Your task to perform on an android device: What's on my calendar today? Image 0: 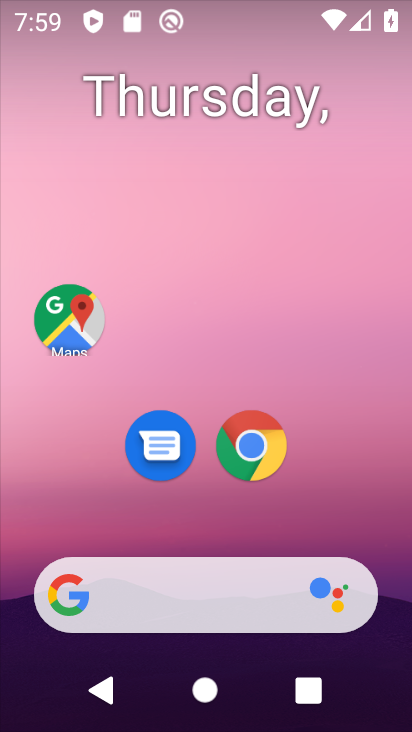
Step 0: drag from (362, 555) to (352, 0)
Your task to perform on an android device: What's on my calendar today? Image 1: 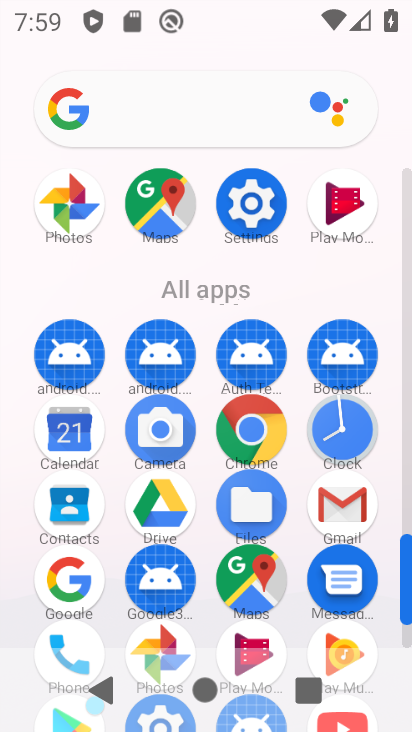
Step 1: click (58, 433)
Your task to perform on an android device: What's on my calendar today? Image 2: 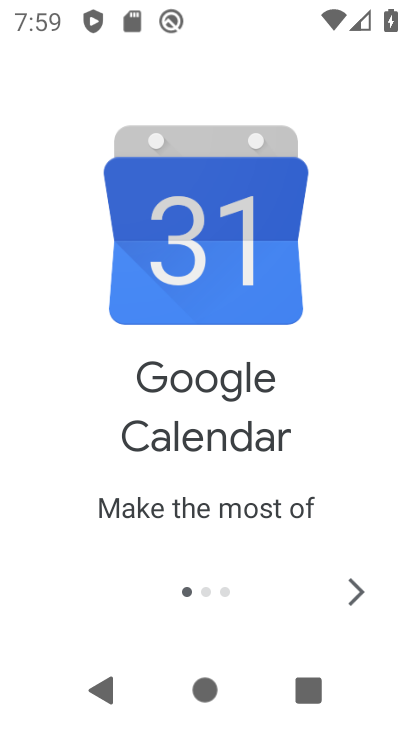
Step 2: click (352, 580)
Your task to perform on an android device: What's on my calendar today? Image 3: 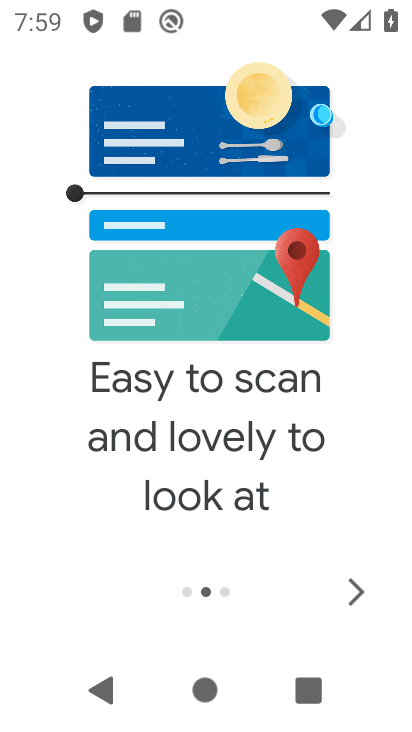
Step 3: click (348, 590)
Your task to perform on an android device: What's on my calendar today? Image 4: 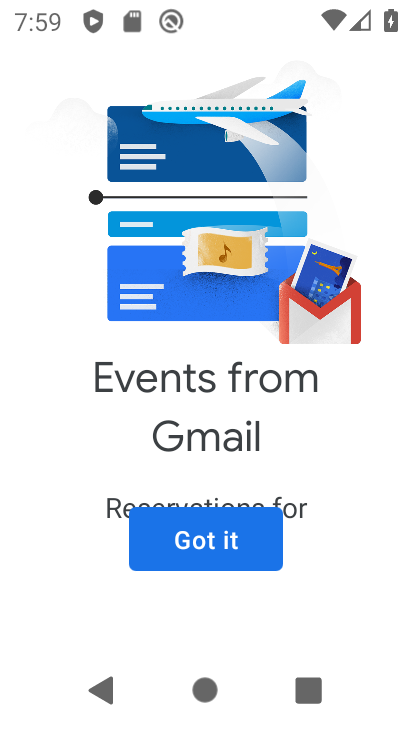
Step 4: click (175, 542)
Your task to perform on an android device: What's on my calendar today? Image 5: 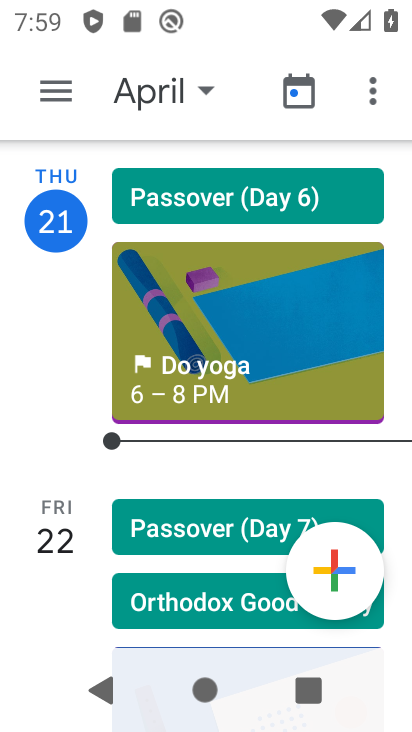
Step 5: click (203, 95)
Your task to perform on an android device: What's on my calendar today? Image 6: 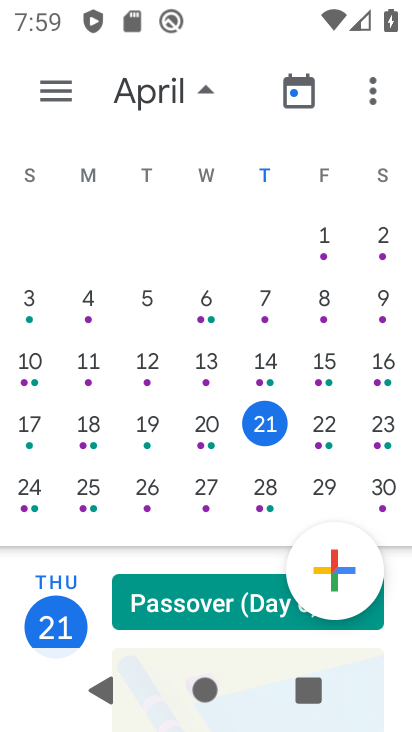
Step 6: click (268, 426)
Your task to perform on an android device: What's on my calendar today? Image 7: 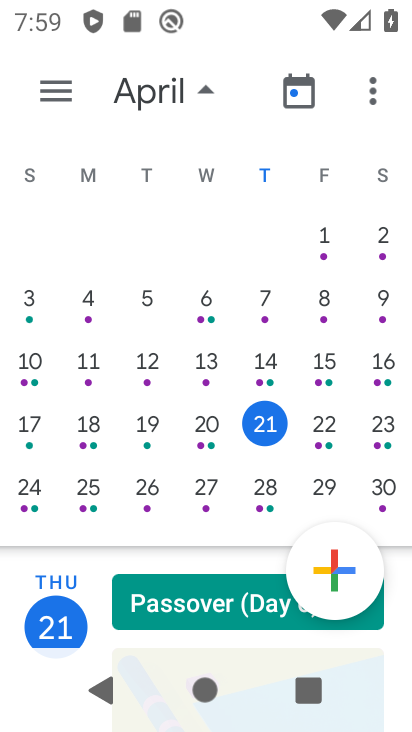
Step 7: drag from (193, 512) to (165, 219)
Your task to perform on an android device: What's on my calendar today? Image 8: 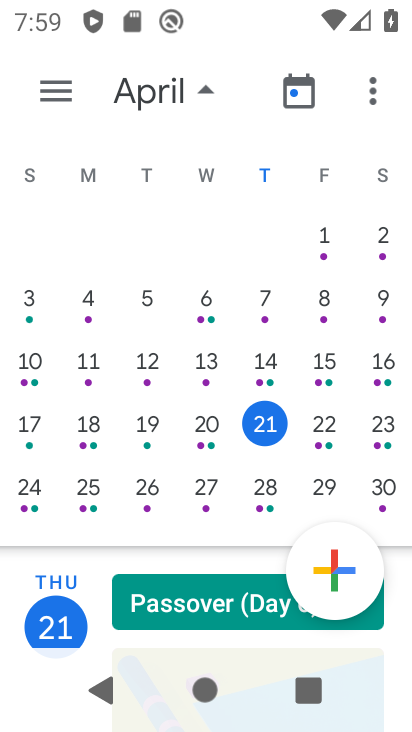
Step 8: drag from (212, 508) to (214, 190)
Your task to perform on an android device: What's on my calendar today? Image 9: 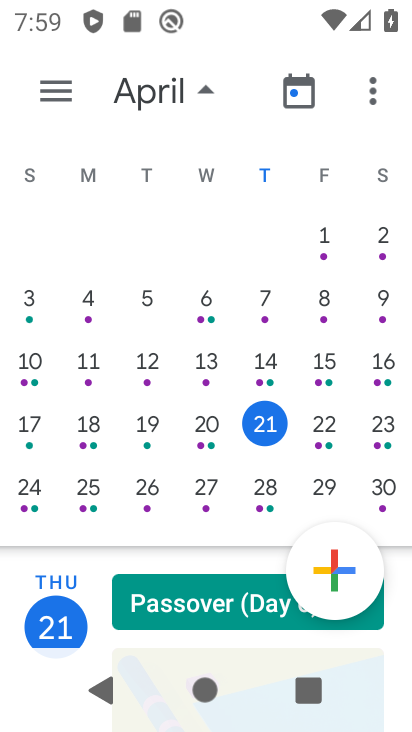
Step 9: drag from (213, 589) to (193, 161)
Your task to perform on an android device: What's on my calendar today? Image 10: 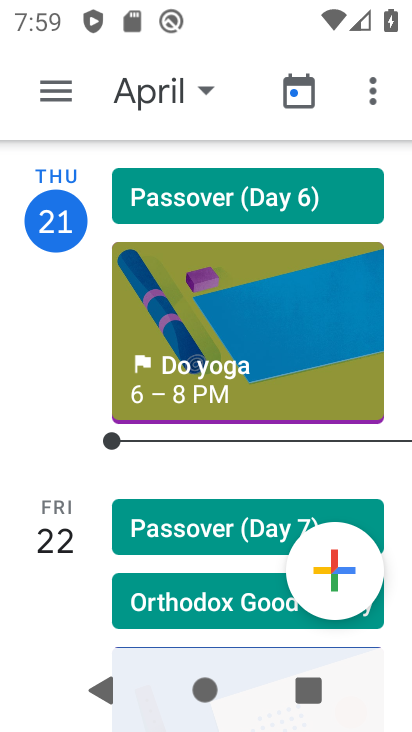
Step 10: click (196, 372)
Your task to perform on an android device: What's on my calendar today? Image 11: 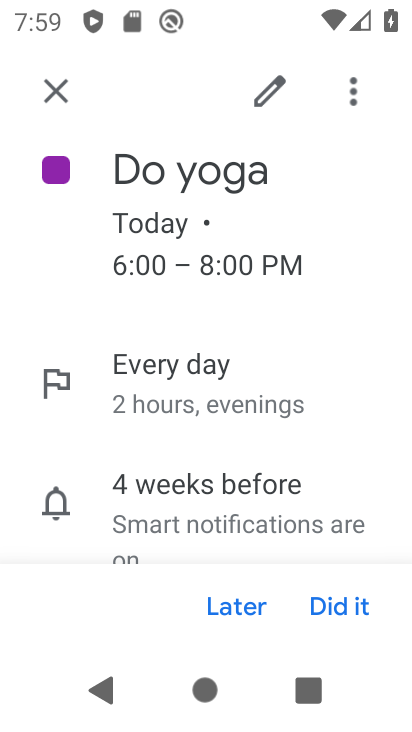
Step 11: task complete